Your task to perform on an android device: What's the news about the US? Image 0: 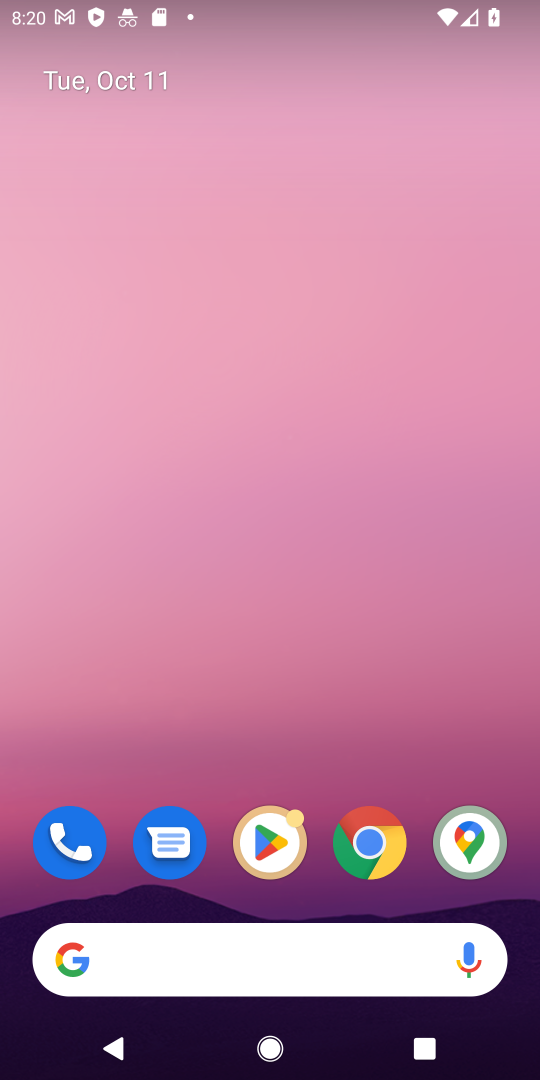
Step 0: drag from (266, 897) to (218, 316)
Your task to perform on an android device: What's the news about the US? Image 1: 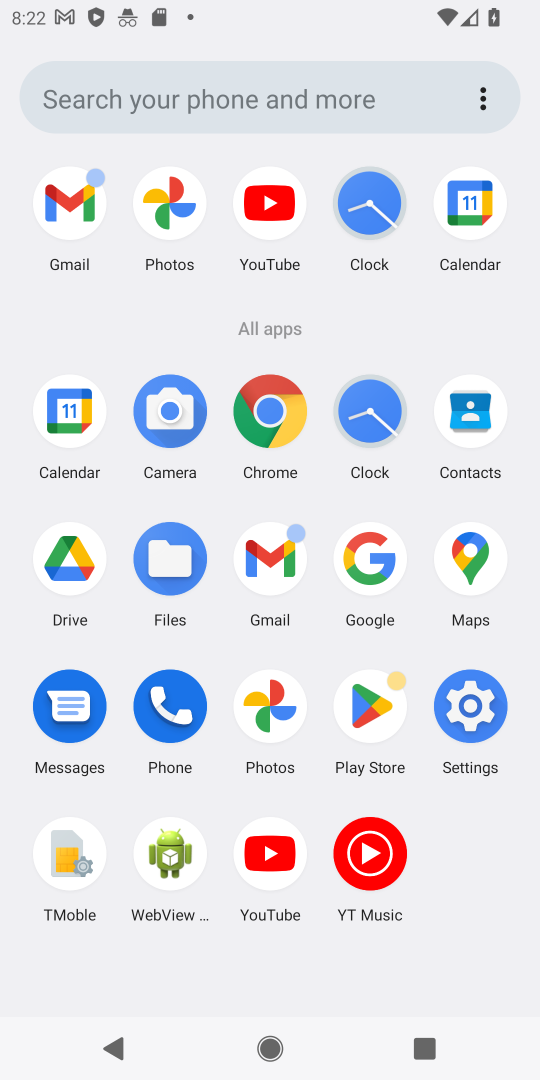
Step 1: click (368, 543)
Your task to perform on an android device: What's the news about the US? Image 2: 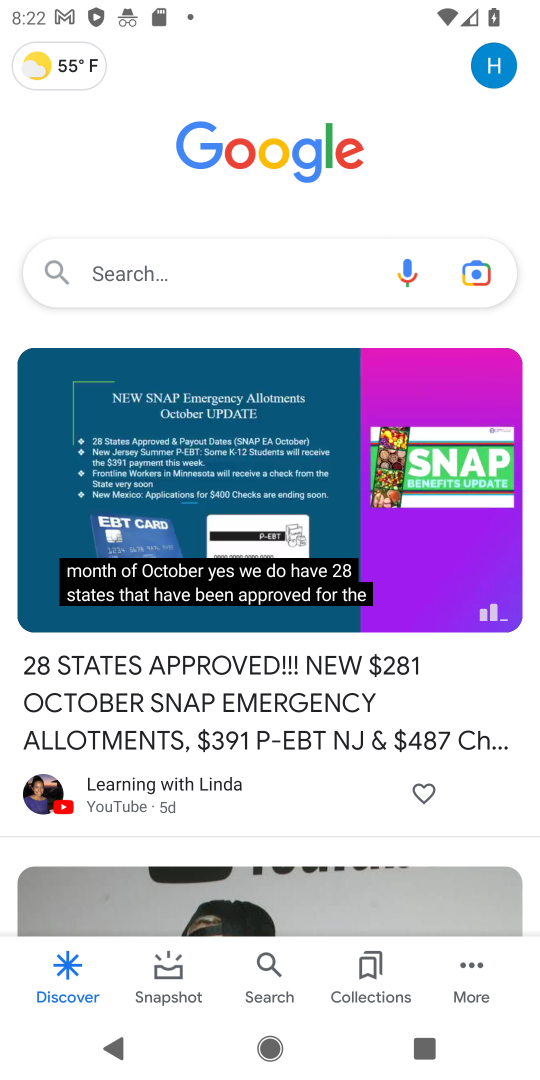
Step 2: click (246, 112)
Your task to perform on an android device: What's the news about the US? Image 3: 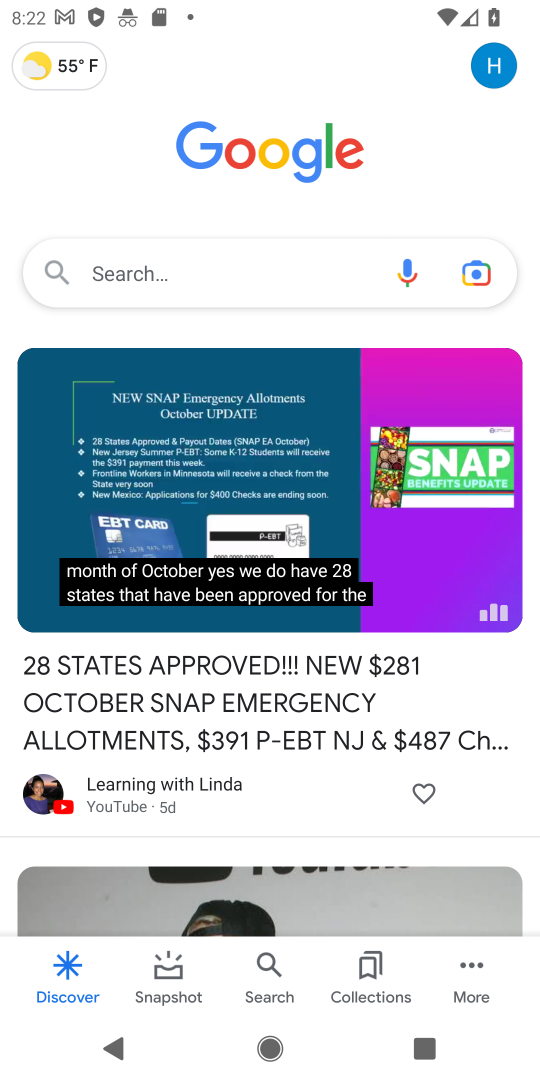
Step 3: click (190, 84)
Your task to perform on an android device: What's the news about the US? Image 4: 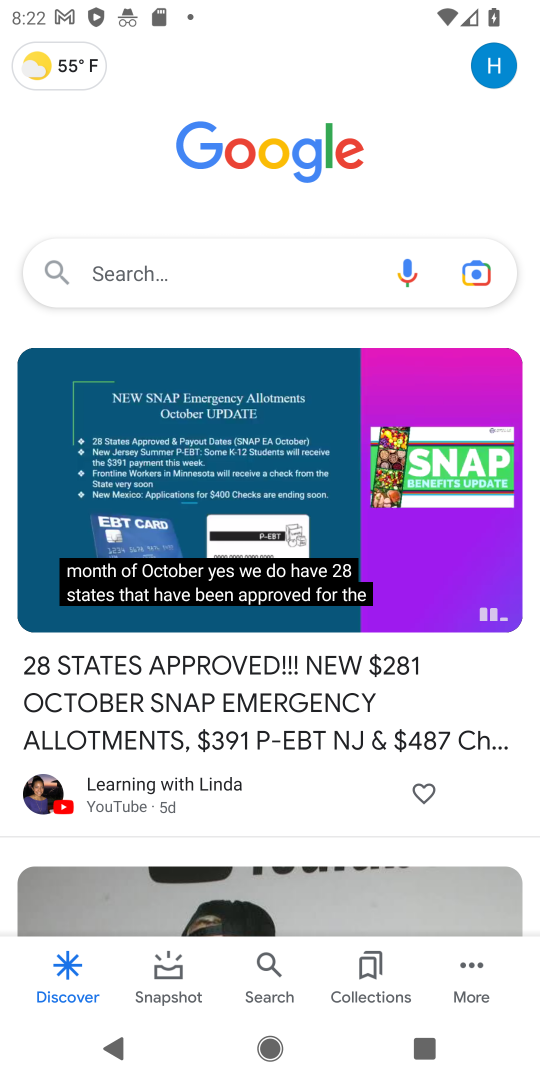
Step 4: click (298, 106)
Your task to perform on an android device: What's the news about the US? Image 5: 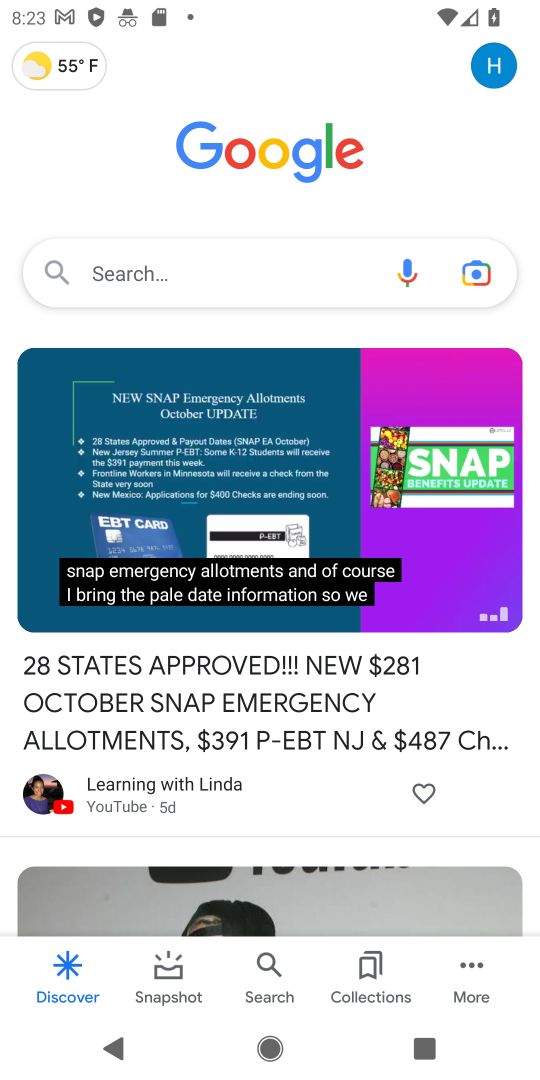
Step 5: click (225, 255)
Your task to perform on an android device: What's the news about the US? Image 6: 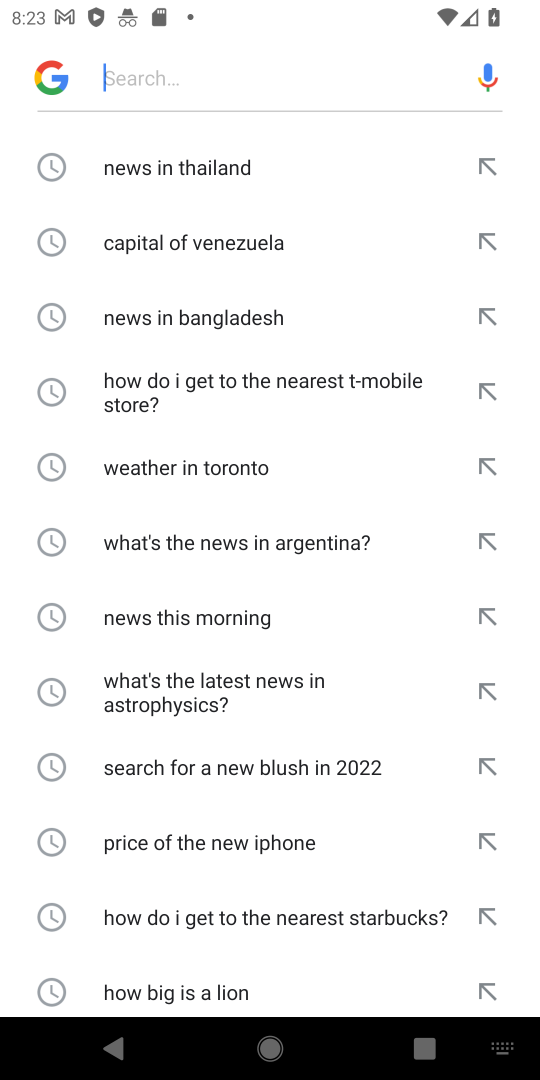
Step 6: type "What's the news about the US?"
Your task to perform on an android device: What's the news about the US? Image 7: 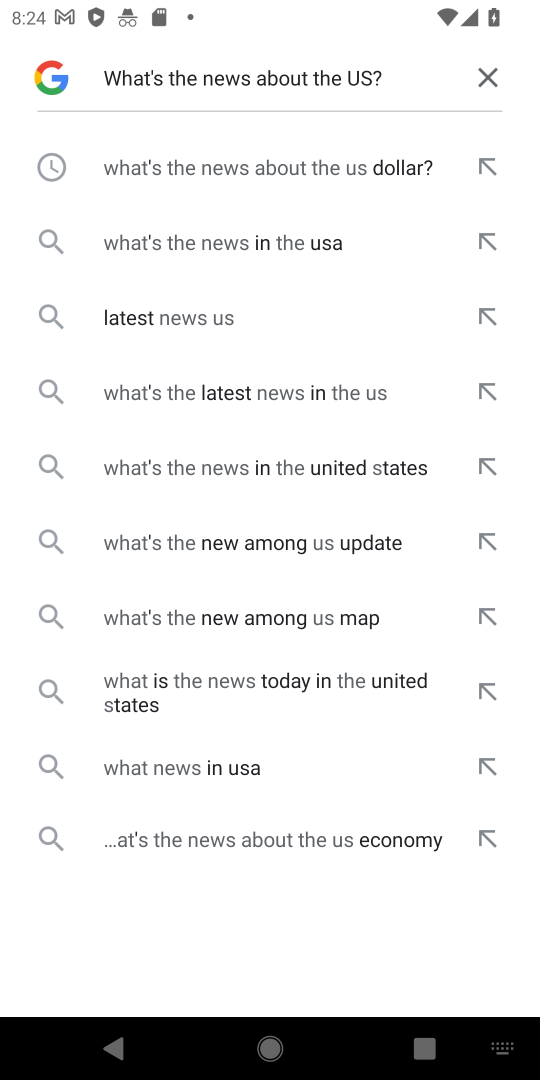
Step 7: click (191, 326)
Your task to perform on an android device: What's the news about the US? Image 8: 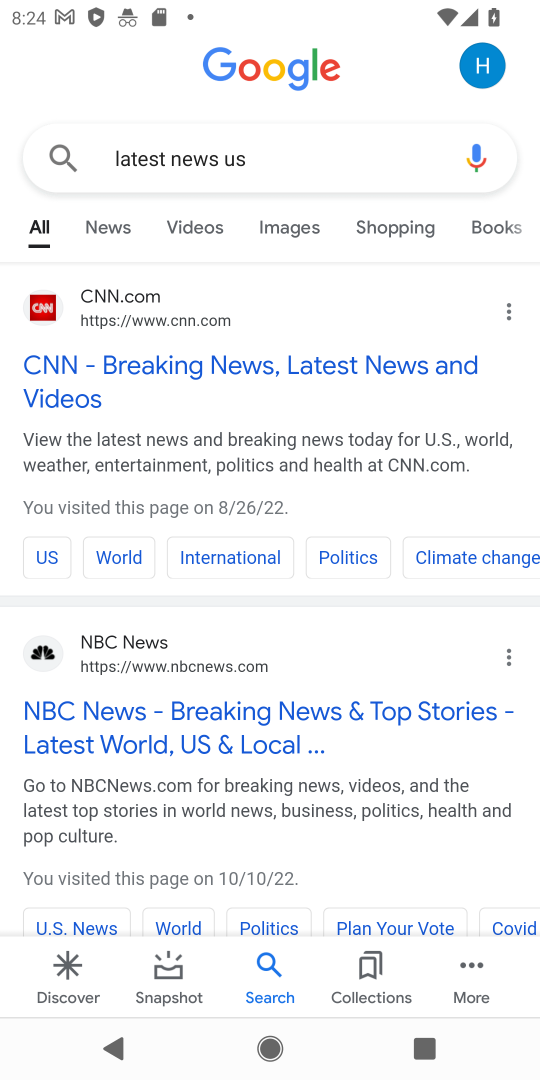
Step 8: click (106, 235)
Your task to perform on an android device: What's the news about the US? Image 9: 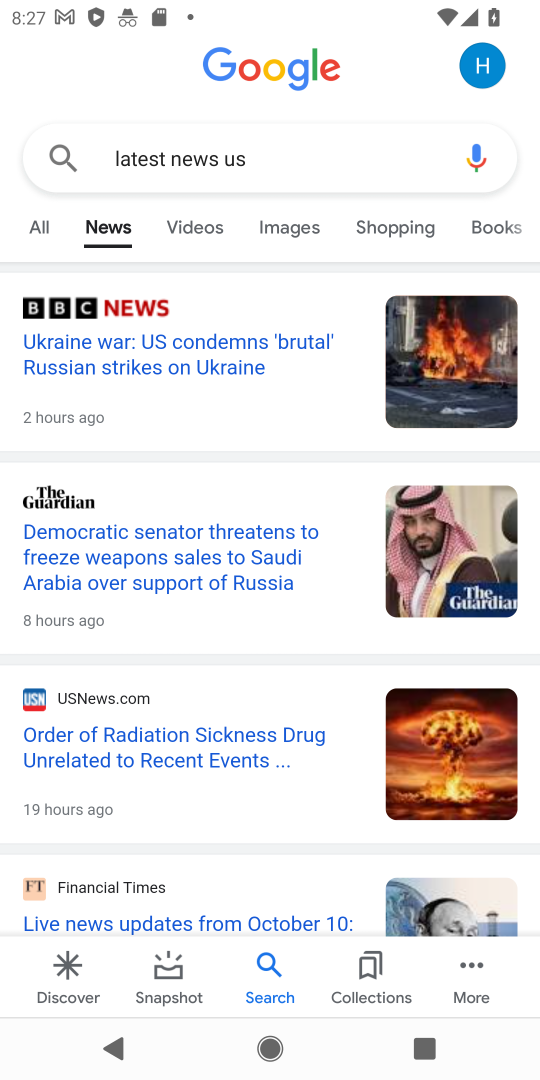
Step 9: task complete